Your task to perform on an android device: Go to ESPN.com Image 0: 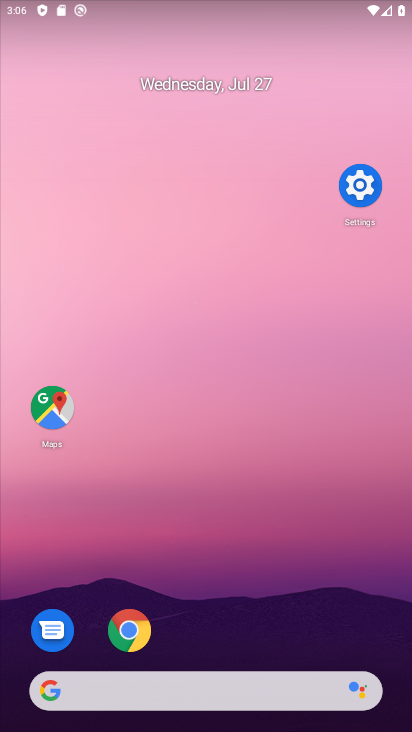
Step 0: press home button
Your task to perform on an android device: Go to ESPN.com Image 1: 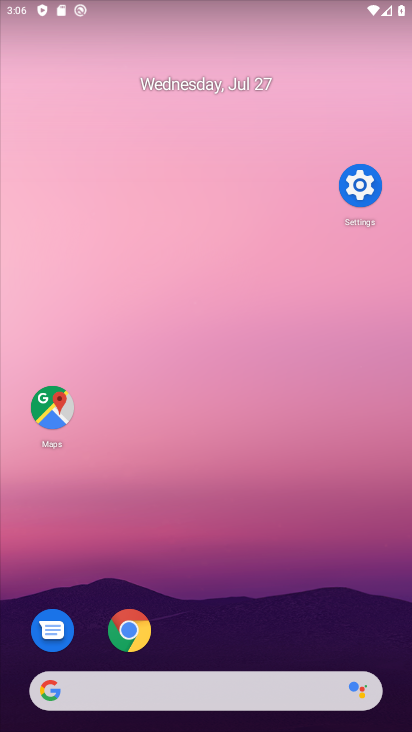
Step 1: click (56, 698)
Your task to perform on an android device: Go to ESPN.com Image 2: 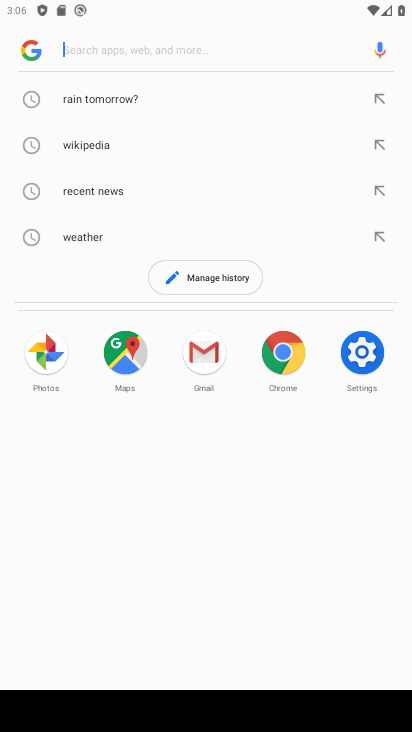
Step 2: type "ESPN.com"
Your task to perform on an android device: Go to ESPN.com Image 3: 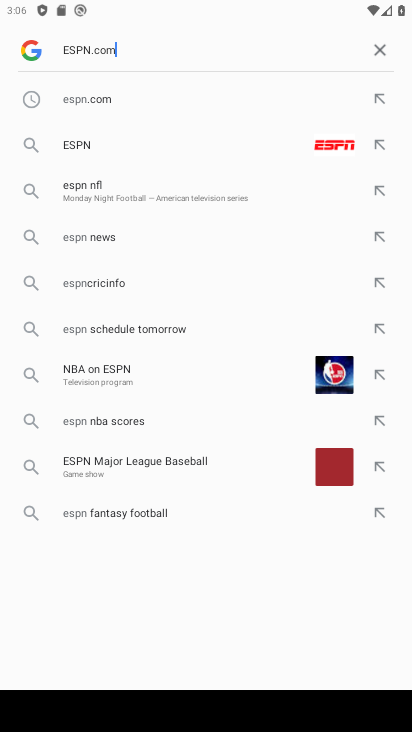
Step 3: press enter
Your task to perform on an android device: Go to ESPN.com Image 4: 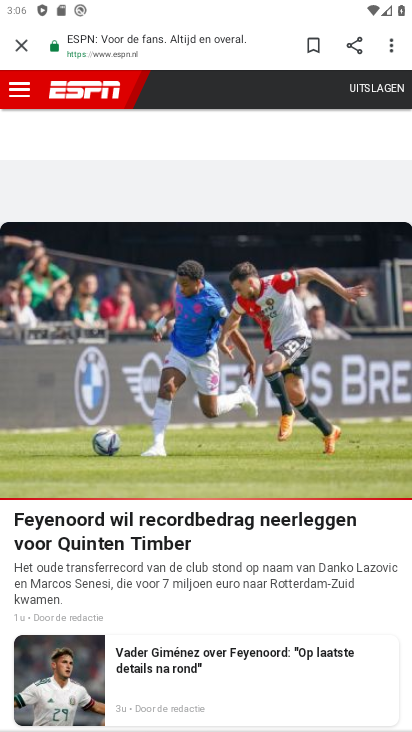
Step 4: task complete